Your task to perform on an android device: Open a new window in Chrome Image 0: 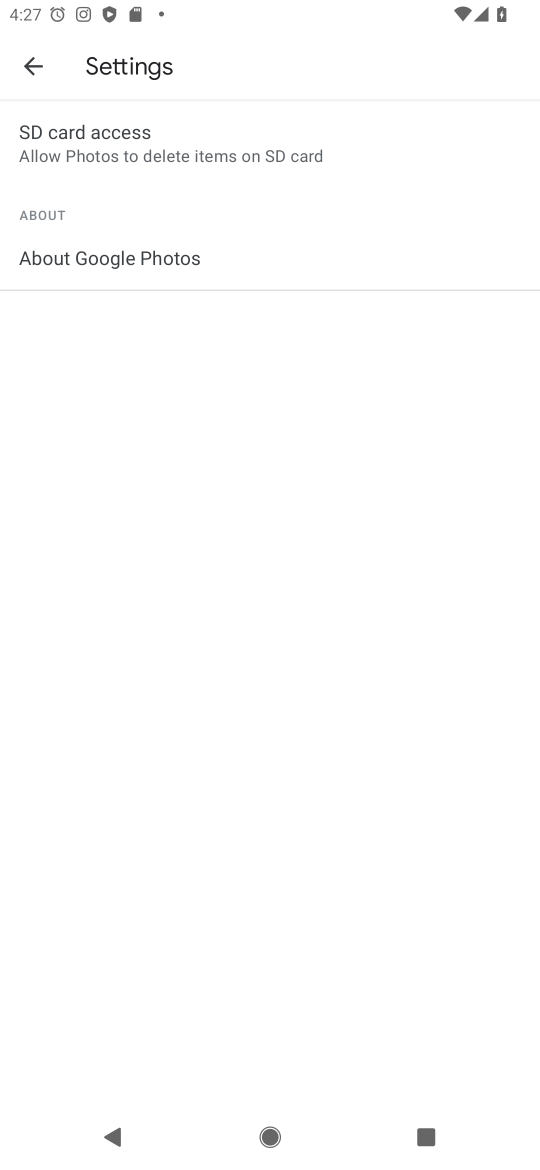
Step 0: press home button
Your task to perform on an android device: Open a new window in Chrome Image 1: 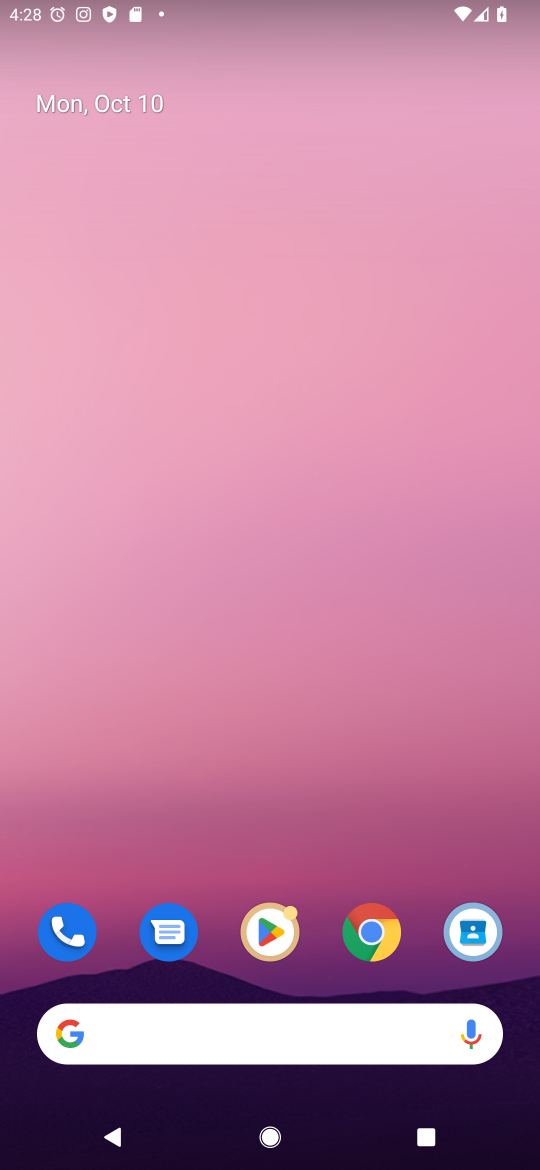
Step 1: drag from (469, 759) to (468, 117)
Your task to perform on an android device: Open a new window in Chrome Image 2: 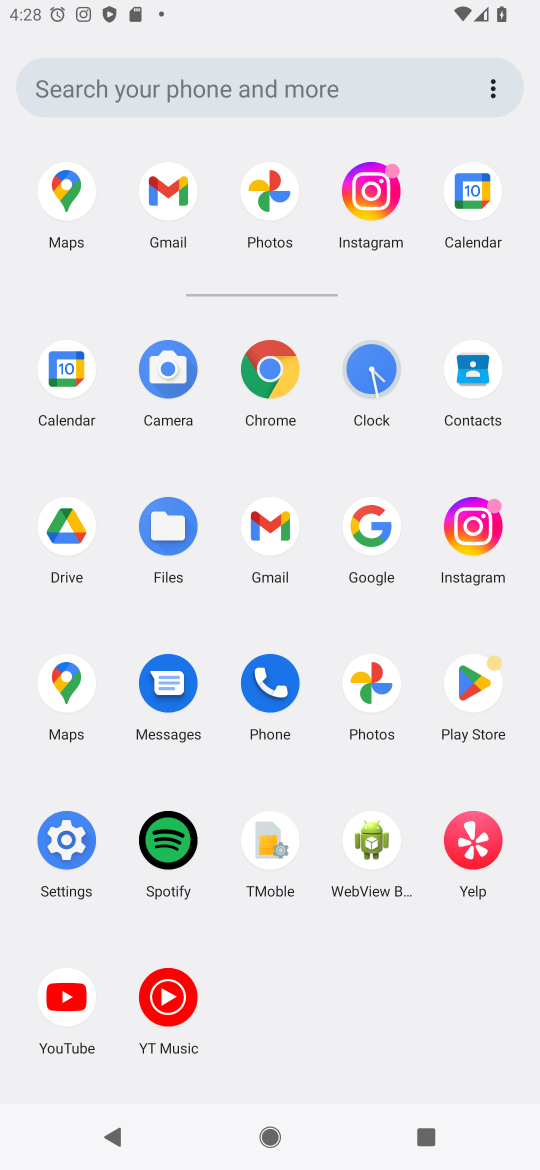
Step 2: click (273, 377)
Your task to perform on an android device: Open a new window in Chrome Image 3: 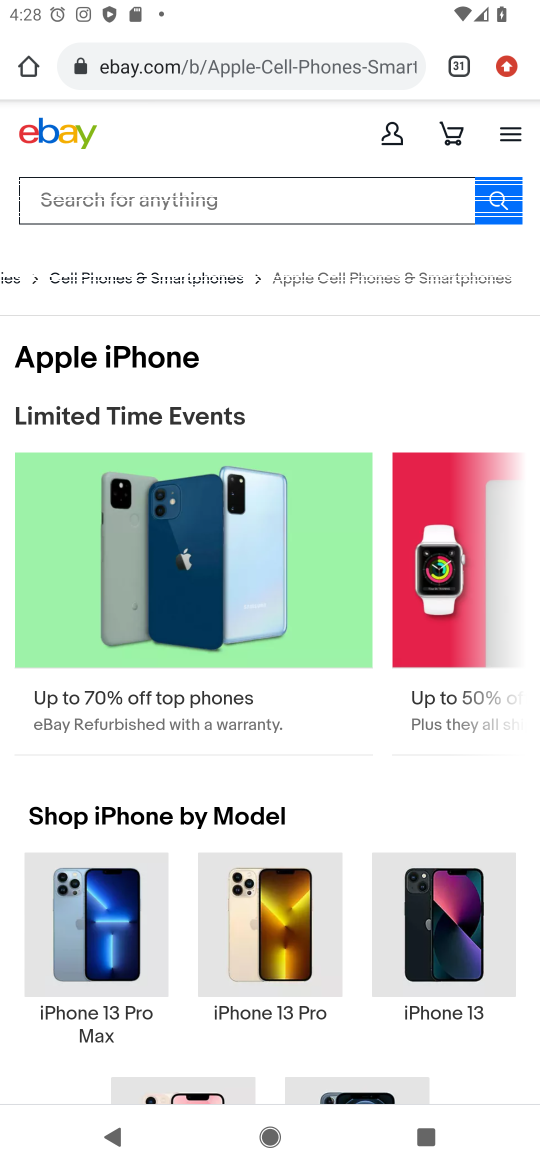
Step 3: click (506, 64)
Your task to perform on an android device: Open a new window in Chrome Image 4: 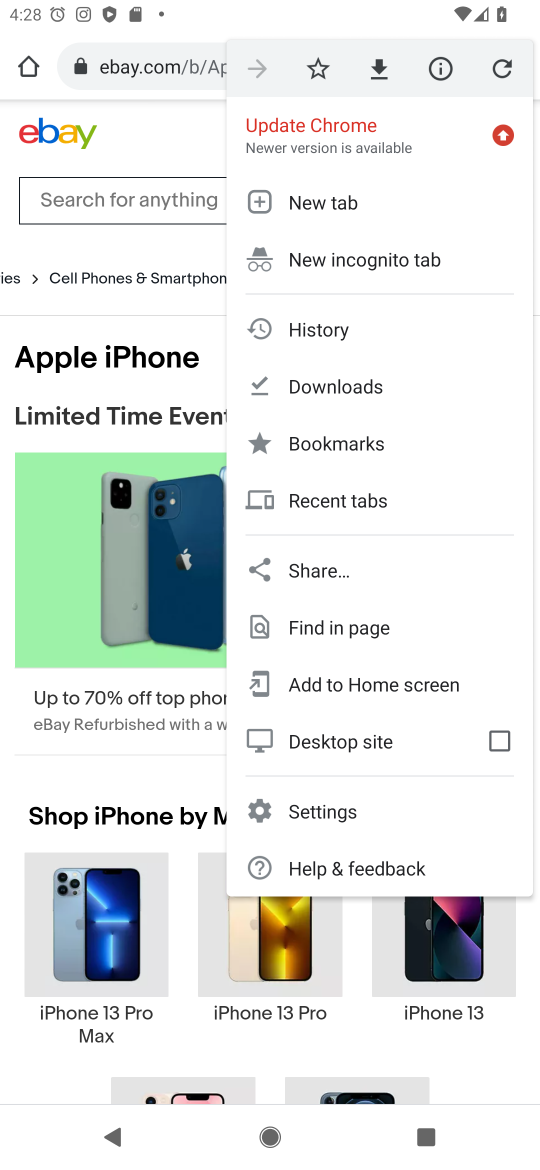
Step 4: click (324, 206)
Your task to perform on an android device: Open a new window in Chrome Image 5: 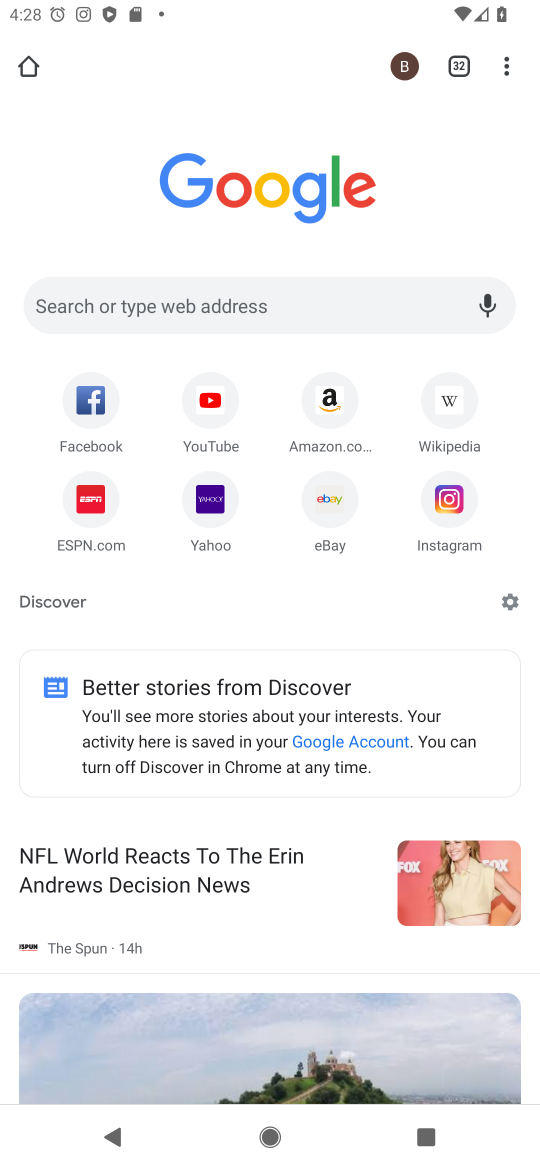
Step 5: task complete